Your task to perform on an android device: change timer sound Image 0: 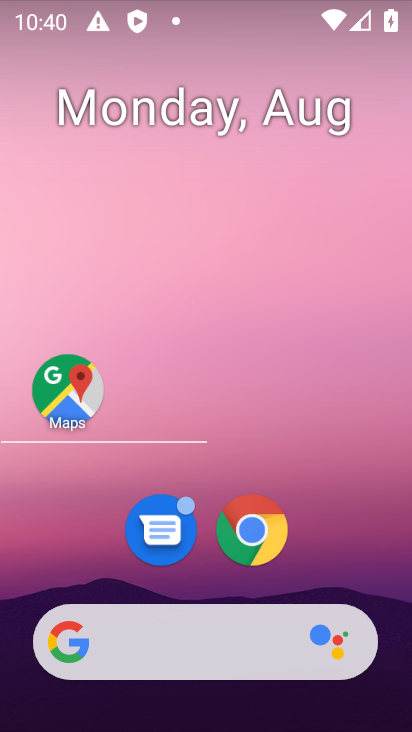
Step 0: press back button
Your task to perform on an android device: change timer sound Image 1: 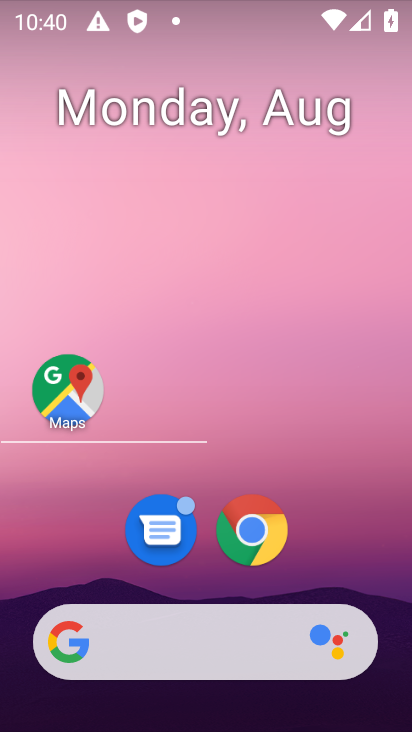
Step 1: drag from (42, 87) to (126, 189)
Your task to perform on an android device: change timer sound Image 2: 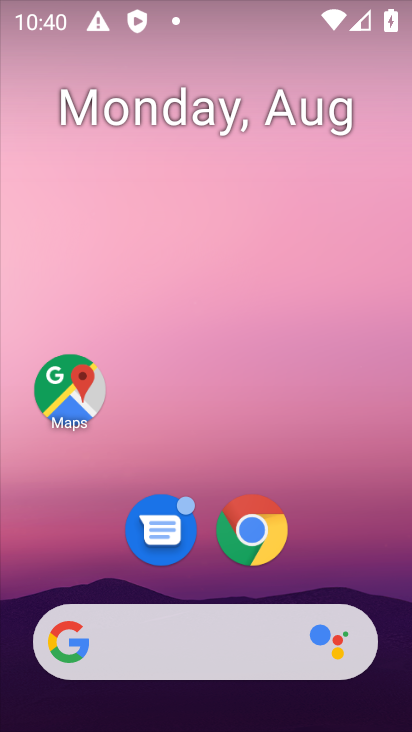
Step 2: drag from (189, 455) to (155, 235)
Your task to perform on an android device: change timer sound Image 3: 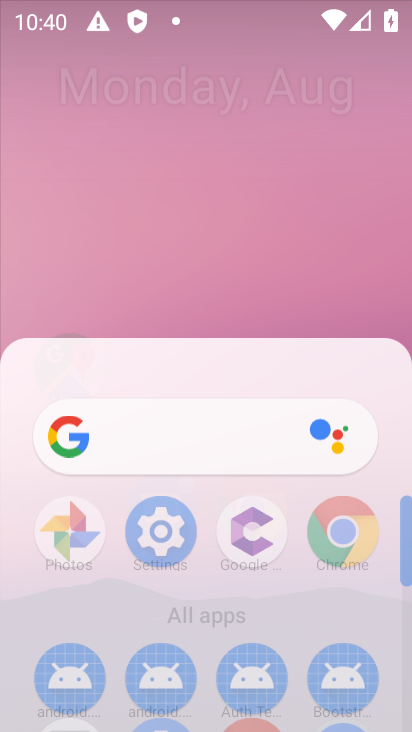
Step 3: drag from (206, 449) to (145, 210)
Your task to perform on an android device: change timer sound Image 4: 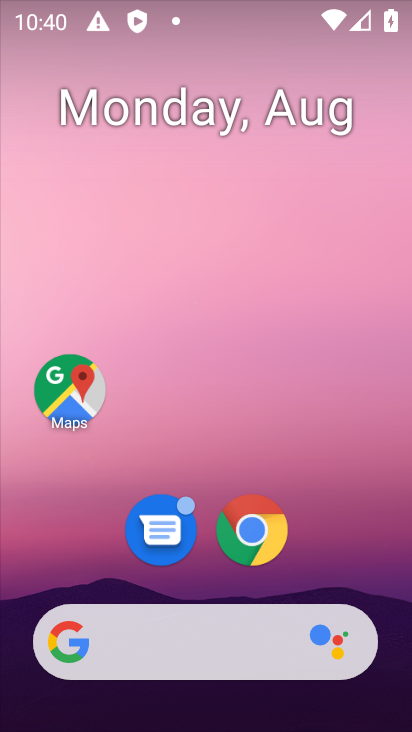
Step 4: drag from (224, 326) to (211, 243)
Your task to perform on an android device: change timer sound Image 5: 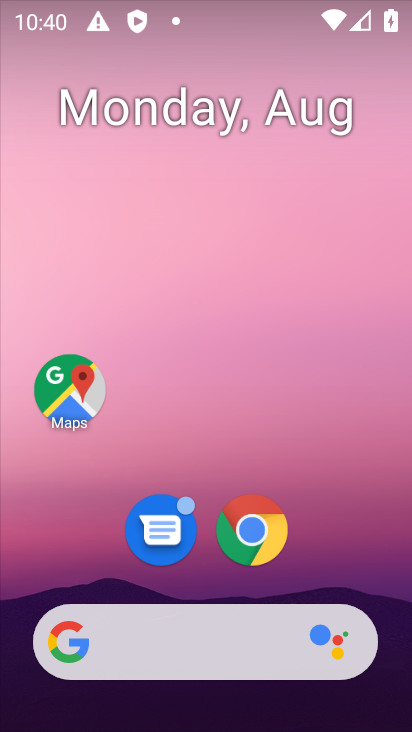
Step 5: drag from (182, 438) to (158, 277)
Your task to perform on an android device: change timer sound Image 6: 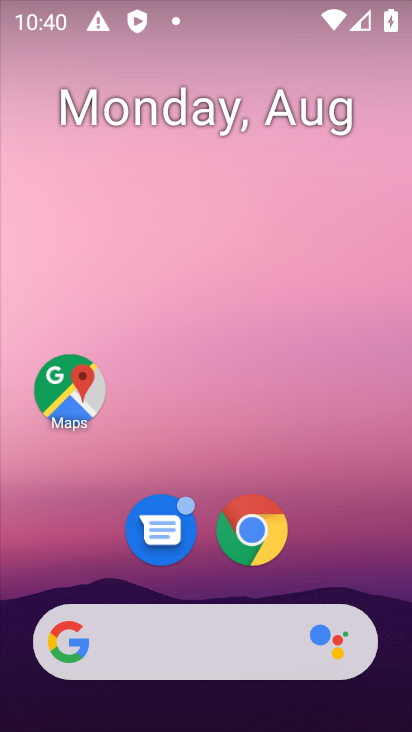
Step 6: drag from (162, 366) to (140, 252)
Your task to perform on an android device: change timer sound Image 7: 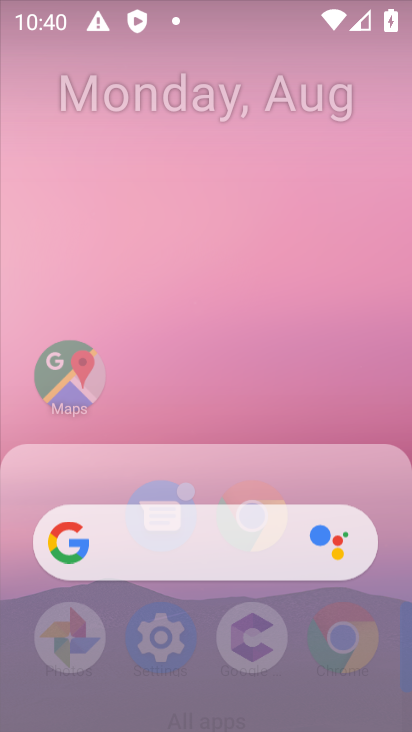
Step 7: click (216, 292)
Your task to perform on an android device: change timer sound Image 8: 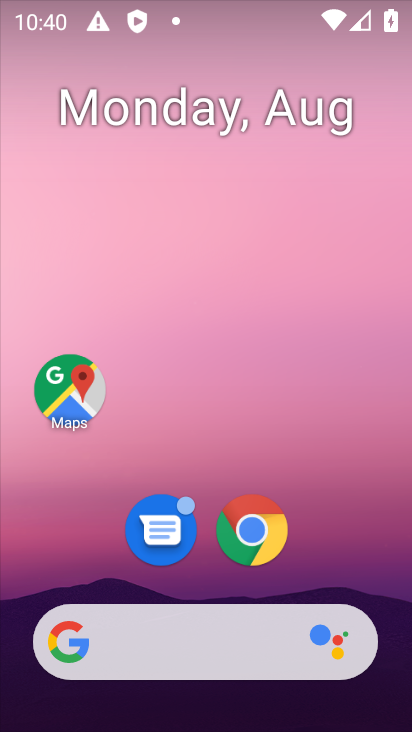
Step 8: drag from (186, 481) to (170, 138)
Your task to perform on an android device: change timer sound Image 9: 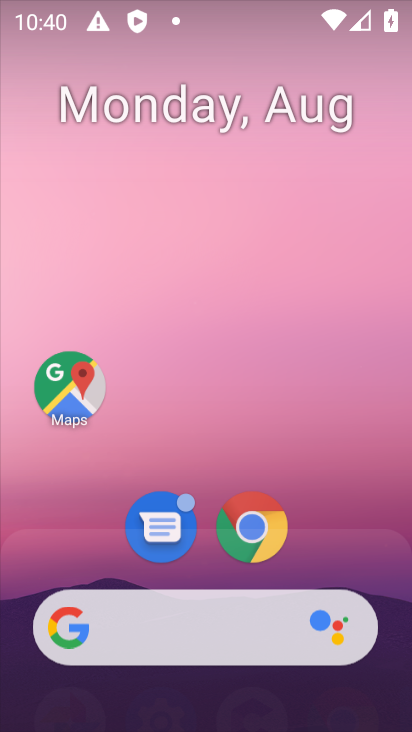
Step 9: drag from (188, 512) to (167, 201)
Your task to perform on an android device: change timer sound Image 10: 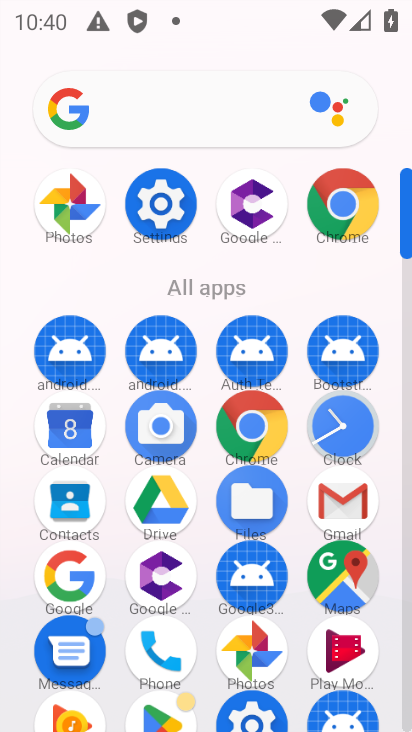
Step 10: drag from (182, 232) to (218, 158)
Your task to perform on an android device: change timer sound Image 11: 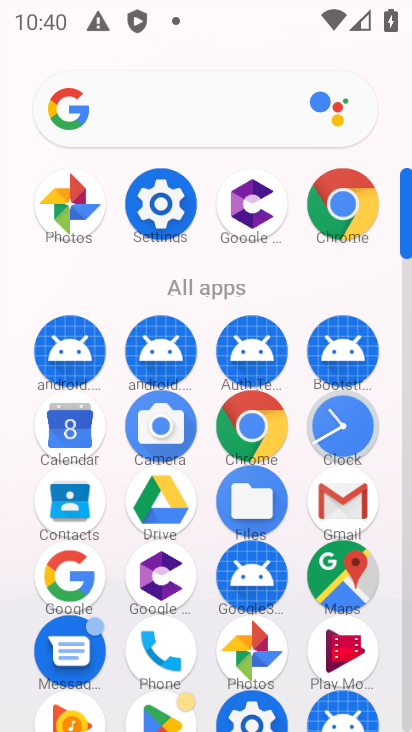
Step 11: click (153, 213)
Your task to perform on an android device: change timer sound Image 12: 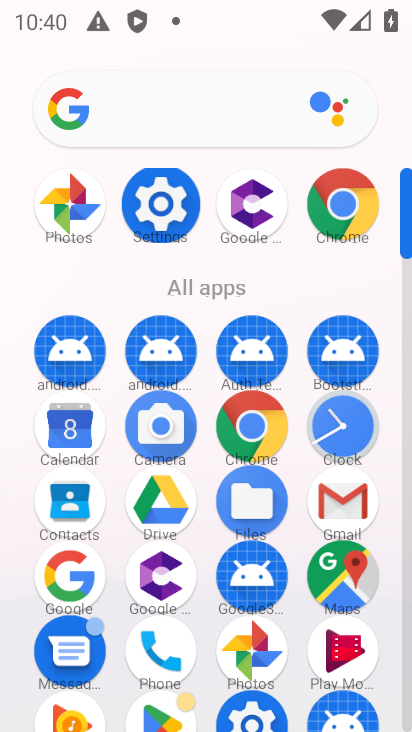
Step 12: click (152, 214)
Your task to perform on an android device: change timer sound Image 13: 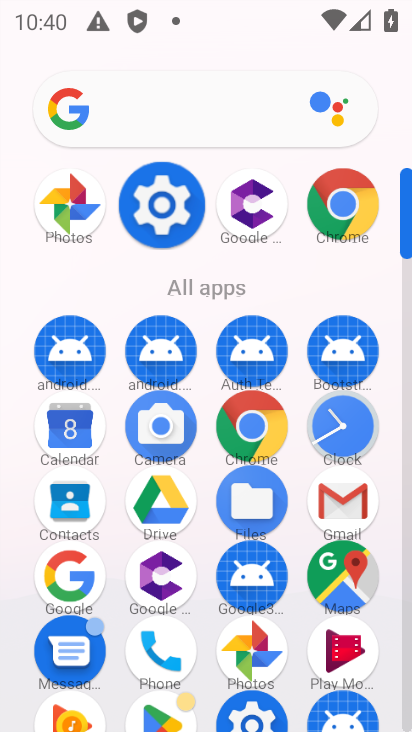
Step 13: click (153, 213)
Your task to perform on an android device: change timer sound Image 14: 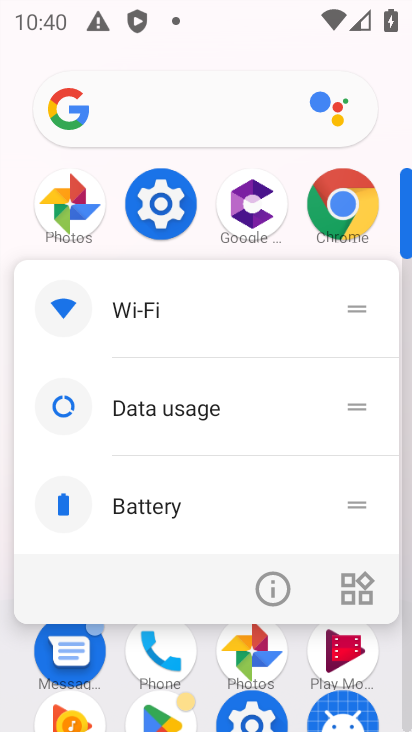
Step 14: click (162, 209)
Your task to perform on an android device: change timer sound Image 15: 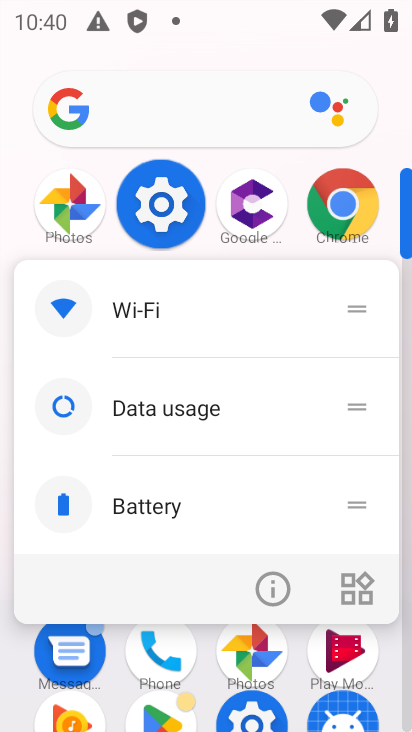
Step 15: click (162, 209)
Your task to perform on an android device: change timer sound Image 16: 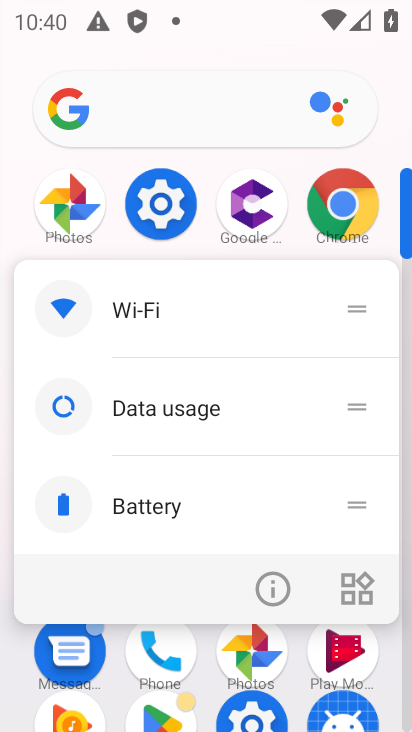
Step 16: click (162, 209)
Your task to perform on an android device: change timer sound Image 17: 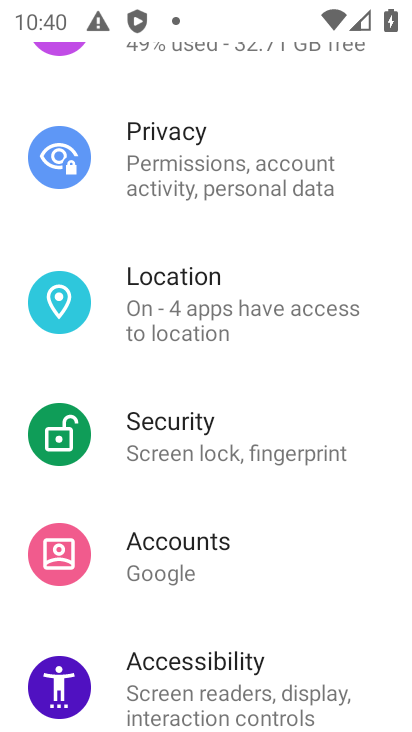
Step 17: drag from (195, 481) to (209, 167)
Your task to perform on an android device: change timer sound Image 18: 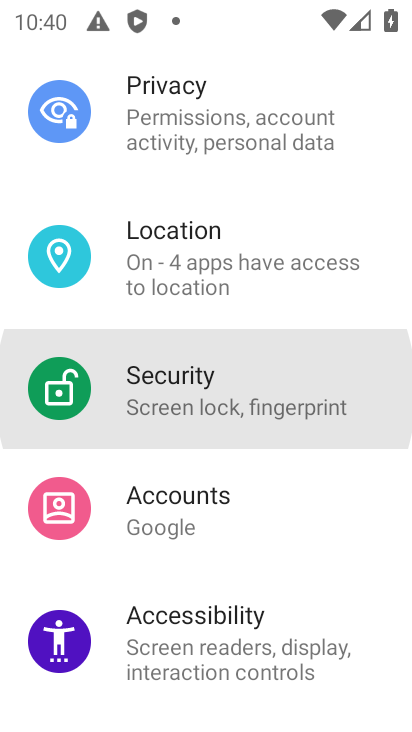
Step 18: drag from (224, 508) to (200, 262)
Your task to perform on an android device: change timer sound Image 19: 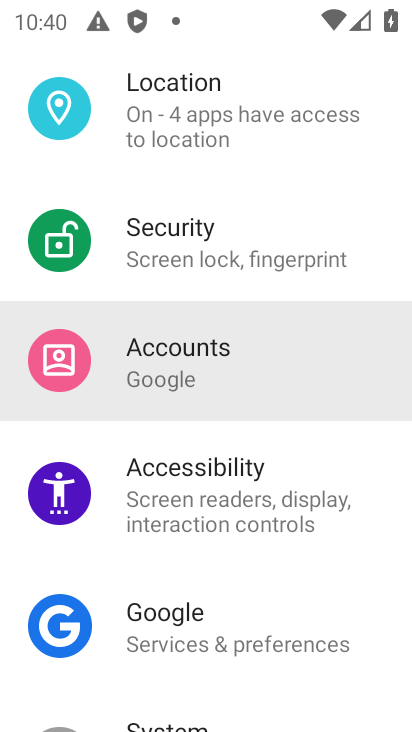
Step 19: drag from (214, 473) to (192, 308)
Your task to perform on an android device: change timer sound Image 20: 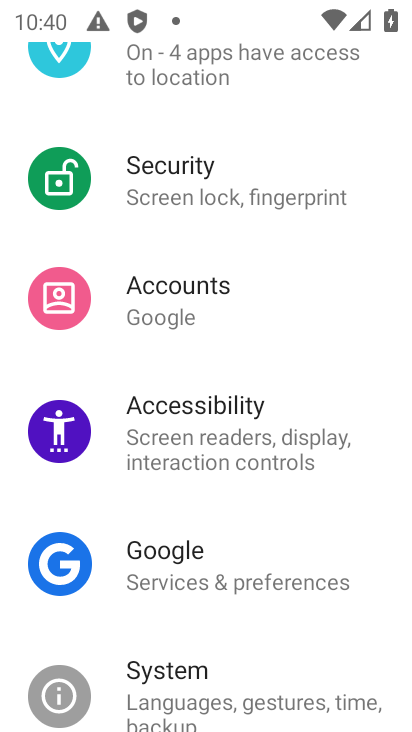
Step 20: drag from (219, 463) to (190, 228)
Your task to perform on an android device: change timer sound Image 21: 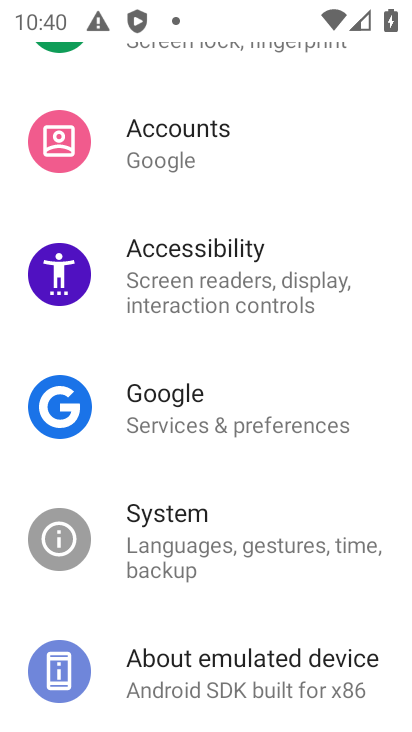
Step 21: click (246, 559)
Your task to perform on an android device: change timer sound Image 22: 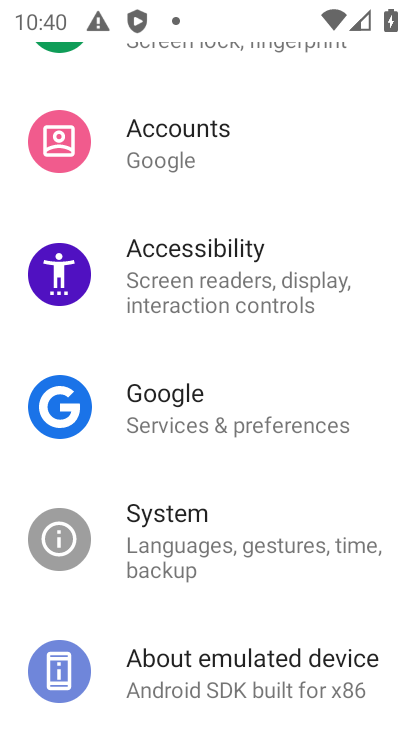
Step 22: drag from (190, 136) to (202, 537)
Your task to perform on an android device: change timer sound Image 23: 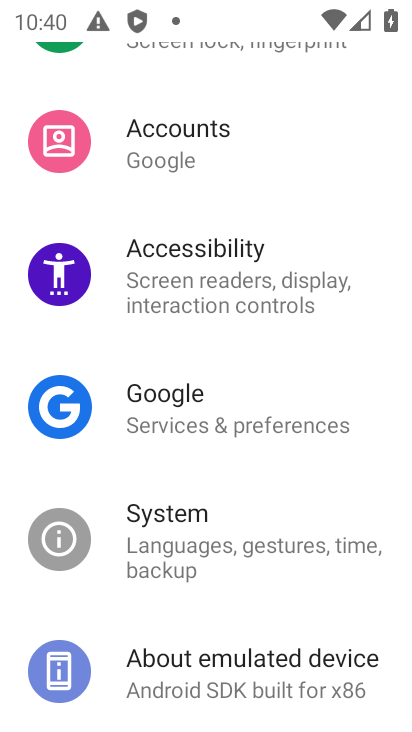
Step 23: drag from (166, 278) to (178, 539)
Your task to perform on an android device: change timer sound Image 24: 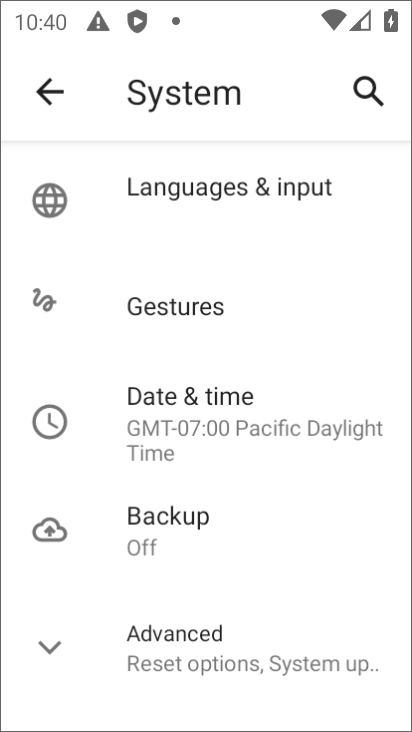
Step 24: drag from (157, 243) to (231, 618)
Your task to perform on an android device: change timer sound Image 25: 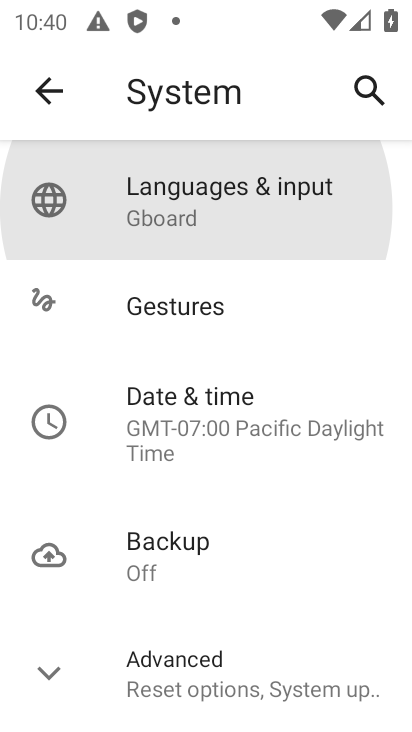
Step 25: drag from (158, 255) to (205, 624)
Your task to perform on an android device: change timer sound Image 26: 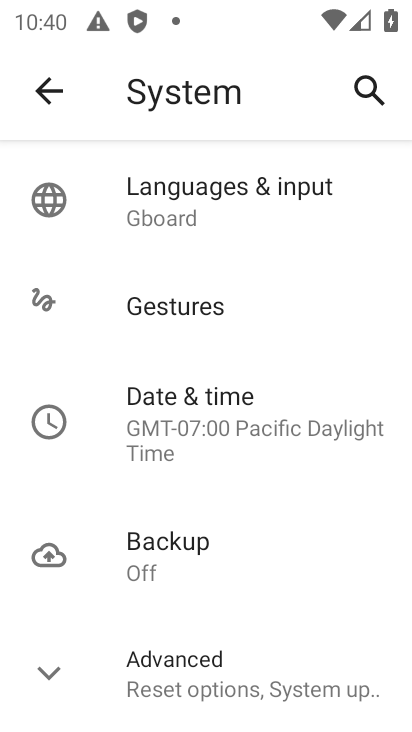
Step 26: click (42, 89)
Your task to perform on an android device: change timer sound Image 27: 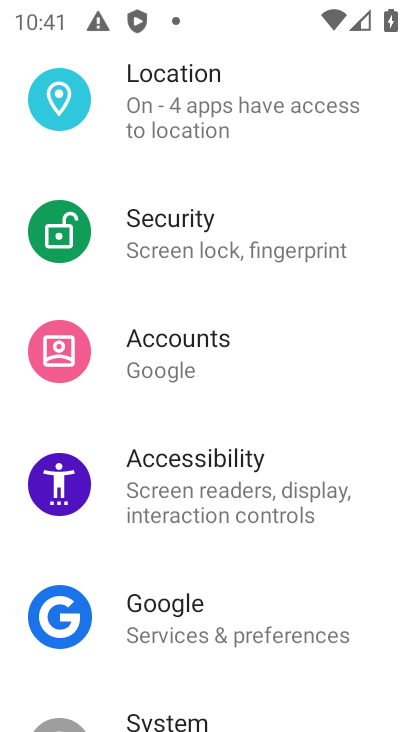
Step 27: drag from (196, 175) to (195, 488)
Your task to perform on an android device: change timer sound Image 28: 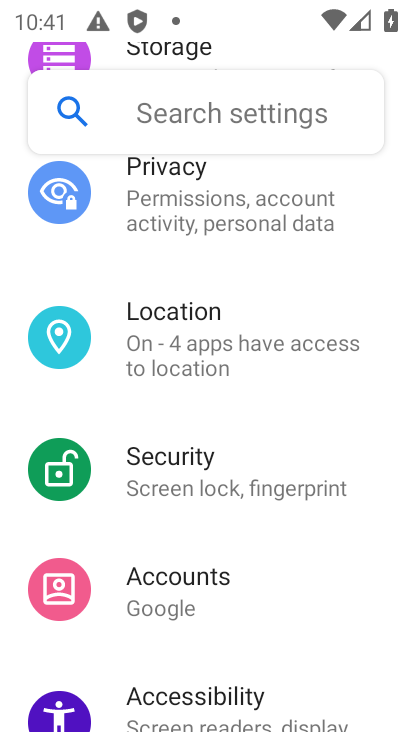
Step 28: drag from (165, 274) to (169, 530)
Your task to perform on an android device: change timer sound Image 29: 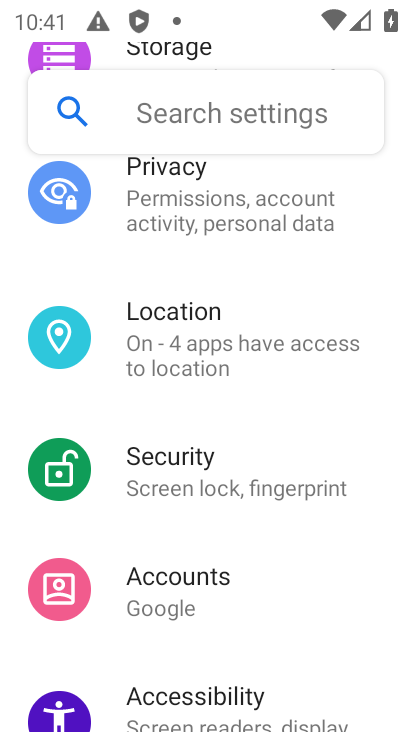
Step 29: drag from (183, 356) to (209, 565)
Your task to perform on an android device: change timer sound Image 30: 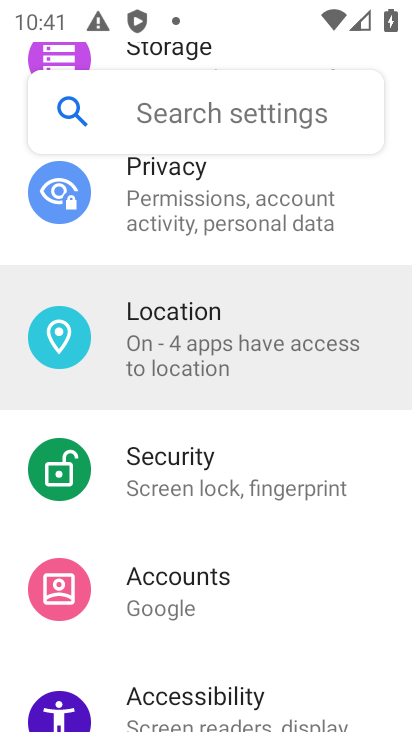
Step 30: click (208, 584)
Your task to perform on an android device: change timer sound Image 31: 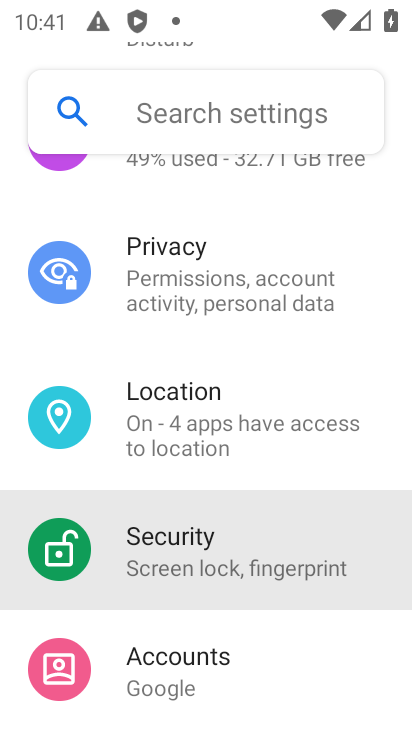
Step 31: click (186, 617)
Your task to perform on an android device: change timer sound Image 32: 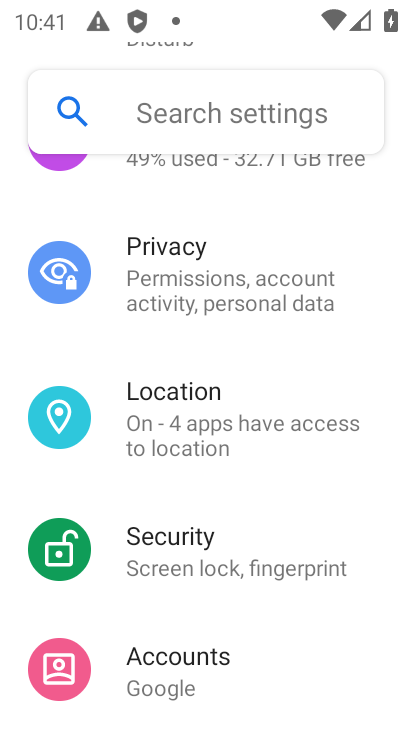
Step 32: drag from (197, 337) to (223, 634)
Your task to perform on an android device: change timer sound Image 33: 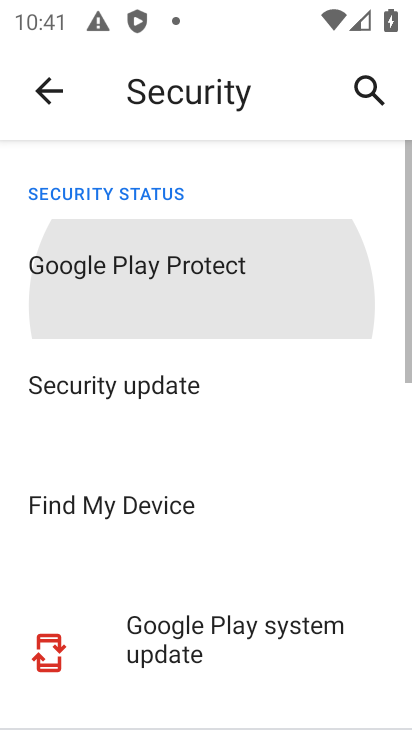
Step 33: click (219, 525)
Your task to perform on an android device: change timer sound Image 34: 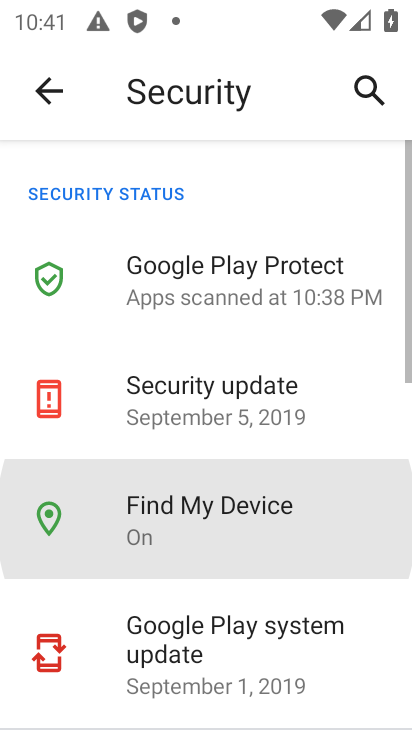
Step 34: click (194, 537)
Your task to perform on an android device: change timer sound Image 35: 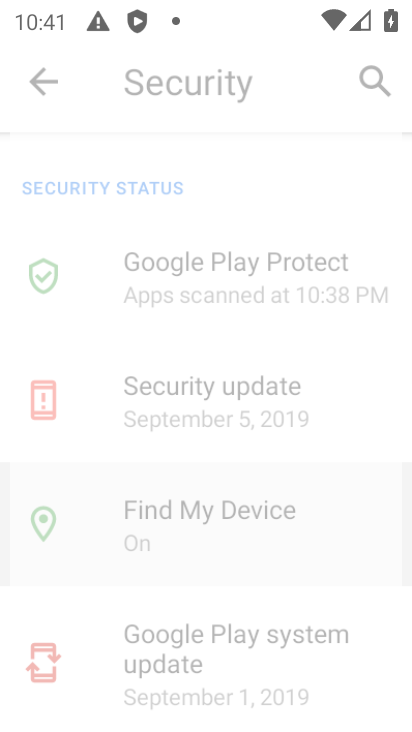
Step 35: drag from (177, 343) to (204, 558)
Your task to perform on an android device: change timer sound Image 36: 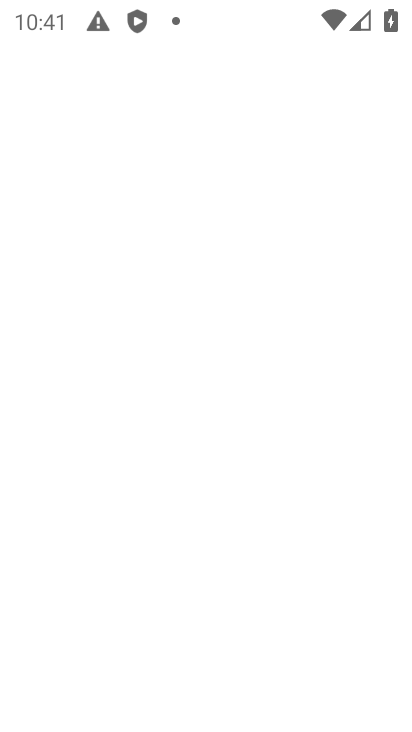
Step 36: click (43, 97)
Your task to perform on an android device: change timer sound Image 37: 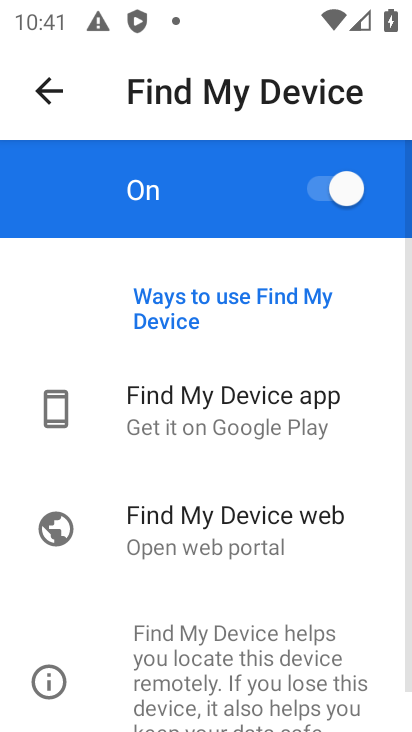
Step 37: press back button
Your task to perform on an android device: change timer sound Image 38: 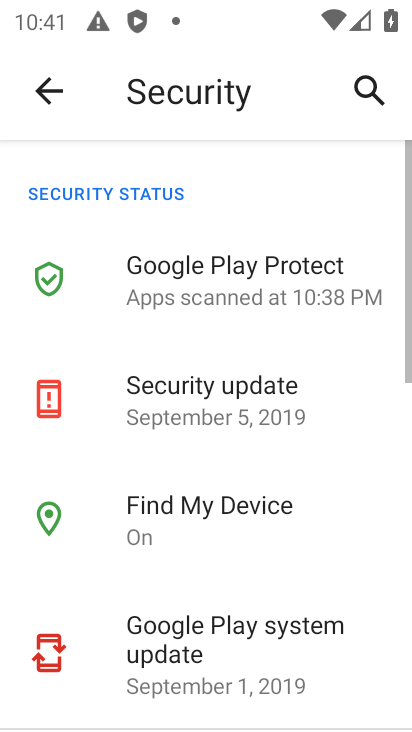
Step 38: click (36, 88)
Your task to perform on an android device: change timer sound Image 39: 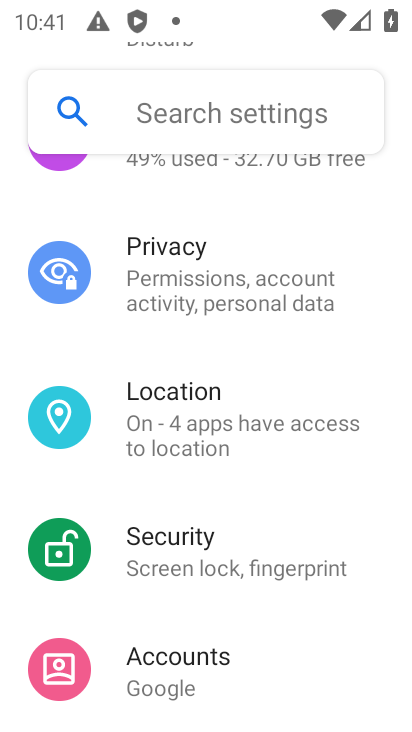
Step 39: press home button
Your task to perform on an android device: change timer sound Image 40: 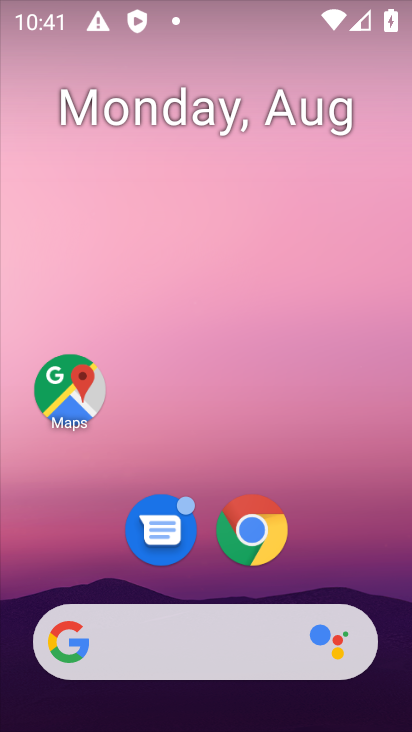
Step 40: drag from (195, 659) to (183, 198)
Your task to perform on an android device: change timer sound Image 41: 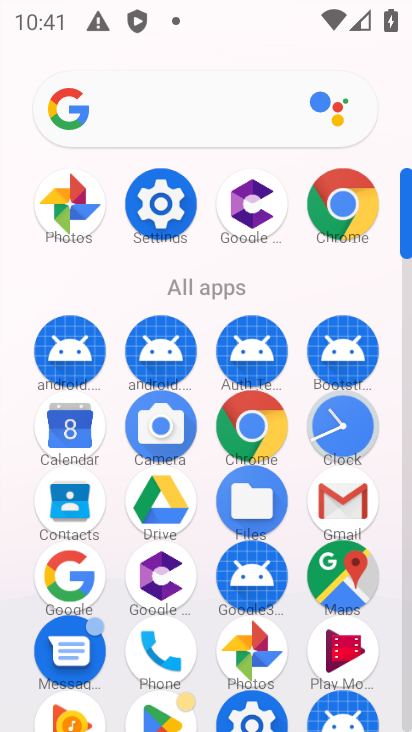
Step 41: click (337, 430)
Your task to perform on an android device: change timer sound Image 42: 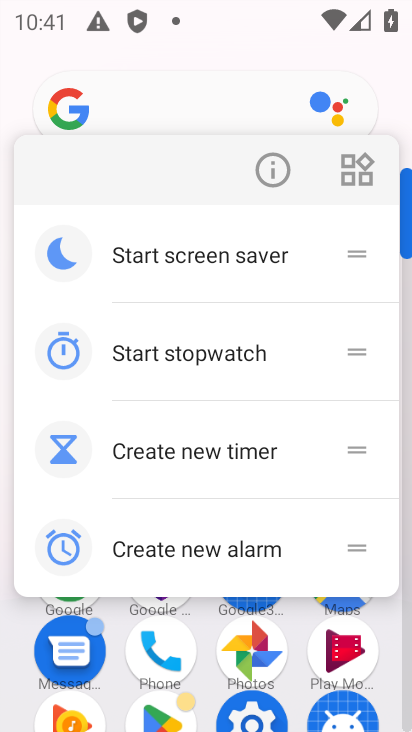
Step 42: click (336, 431)
Your task to perform on an android device: change timer sound Image 43: 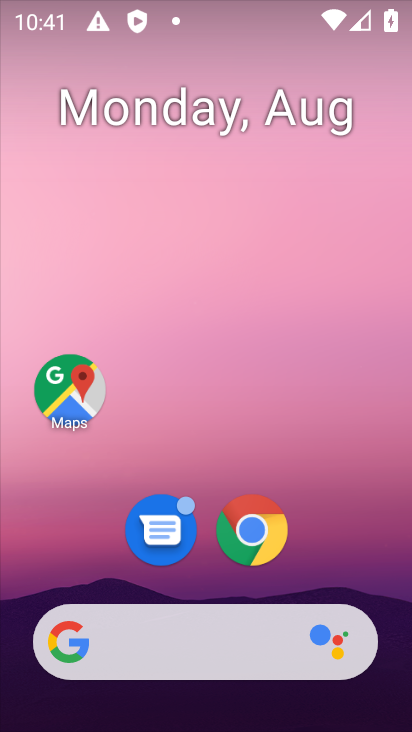
Step 43: drag from (178, 573) to (107, 219)
Your task to perform on an android device: change timer sound Image 44: 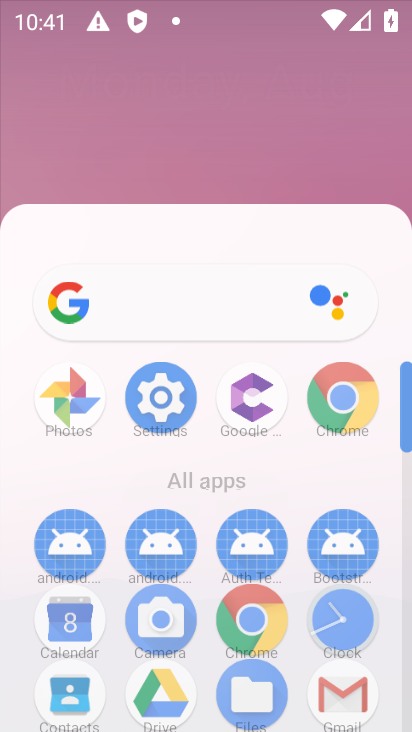
Step 44: drag from (265, 587) to (265, 329)
Your task to perform on an android device: change timer sound Image 45: 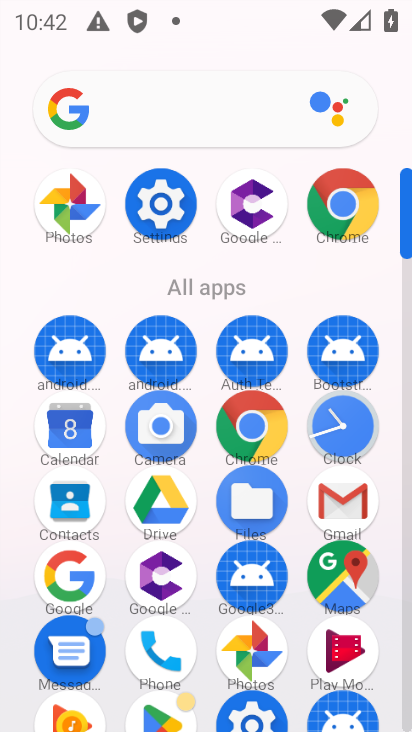
Step 45: click (327, 418)
Your task to perform on an android device: change timer sound Image 46: 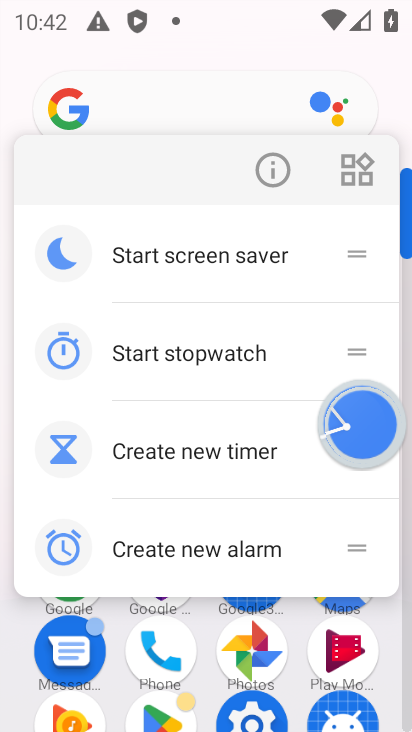
Step 46: click (349, 450)
Your task to perform on an android device: change timer sound Image 47: 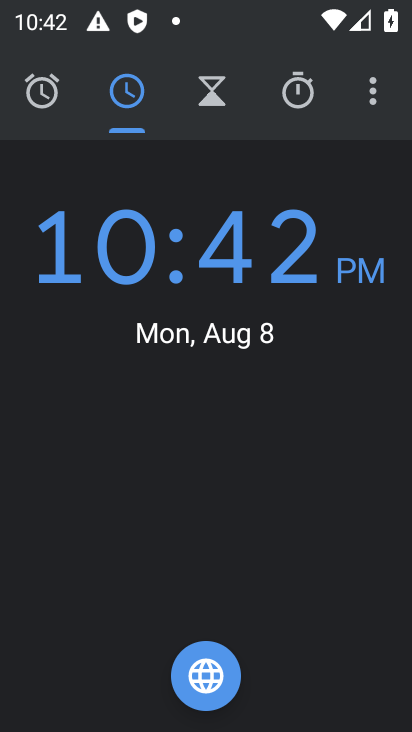
Step 47: click (371, 98)
Your task to perform on an android device: change timer sound Image 48: 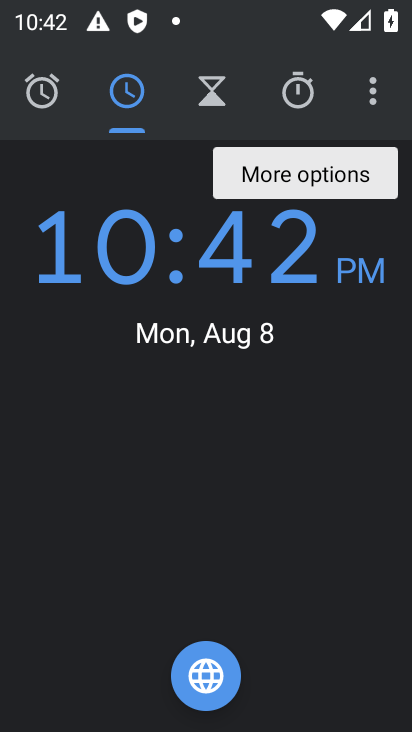
Step 48: click (370, 97)
Your task to perform on an android device: change timer sound Image 49: 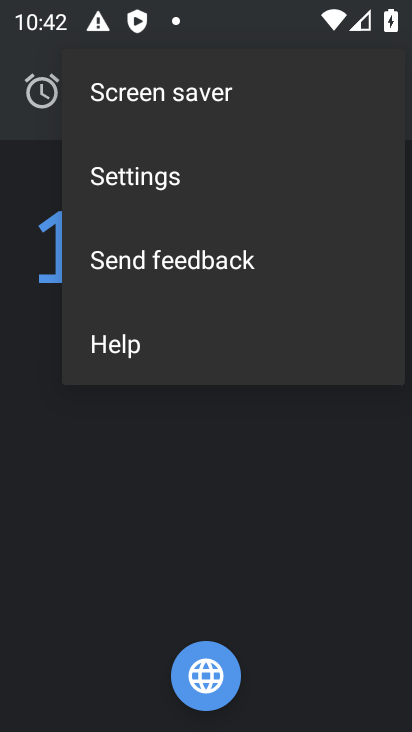
Step 49: click (128, 166)
Your task to perform on an android device: change timer sound Image 50: 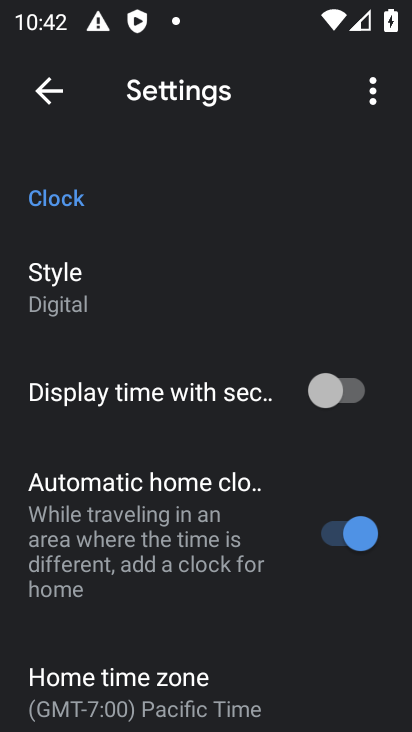
Step 50: drag from (207, 584) to (178, 423)
Your task to perform on an android device: change timer sound Image 51: 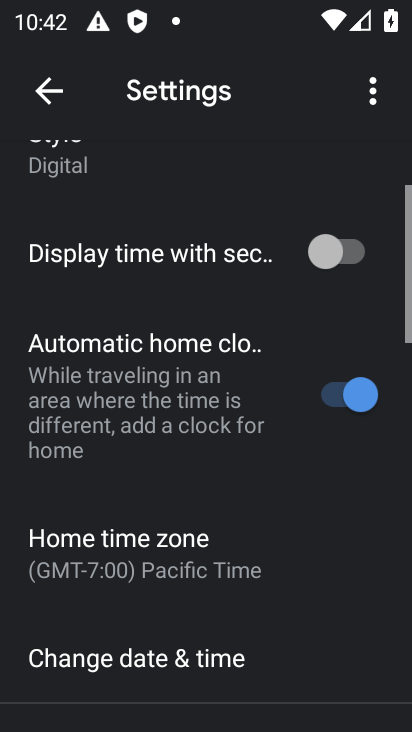
Step 51: drag from (192, 563) to (186, 277)
Your task to perform on an android device: change timer sound Image 52: 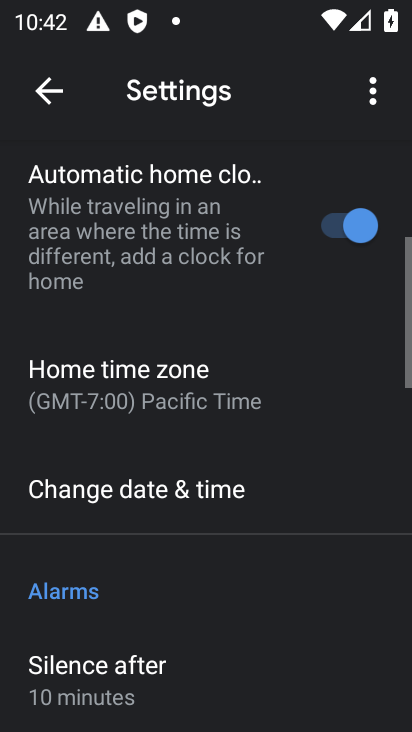
Step 52: drag from (198, 493) to (204, 431)
Your task to perform on an android device: change timer sound Image 53: 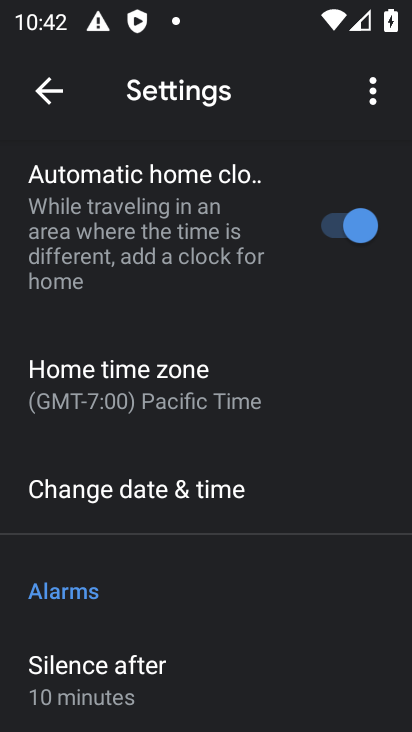
Step 53: drag from (182, 582) to (122, 263)
Your task to perform on an android device: change timer sound Image 54: 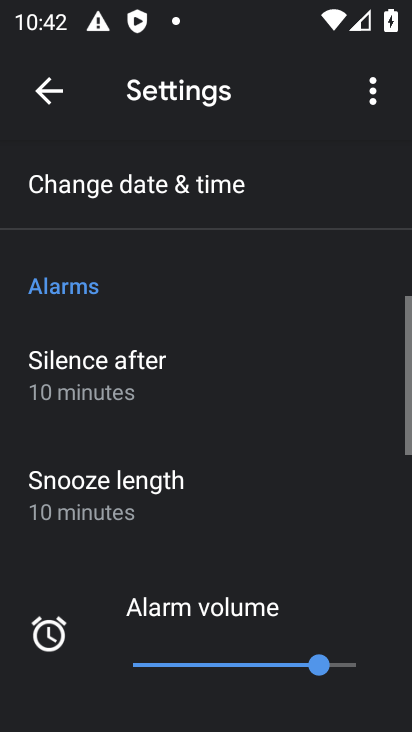
Step 54: click (142, 289)
Your task to perform on an android device: change timer sound Image 55: 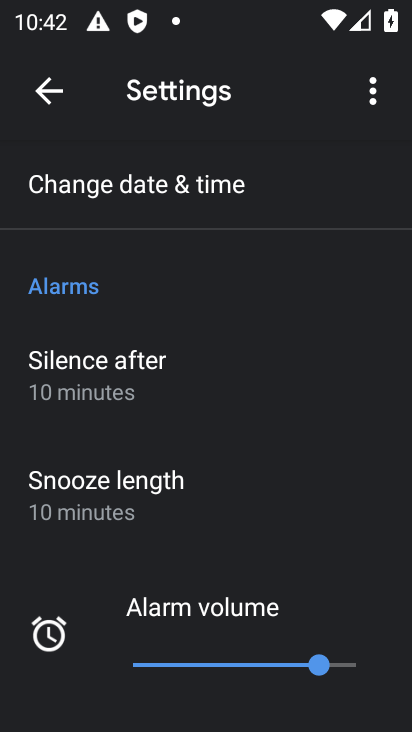
Step 55: drag from (189, 574) to (159, 308)
Your task to perform on an android device: change timer sound Image 56: 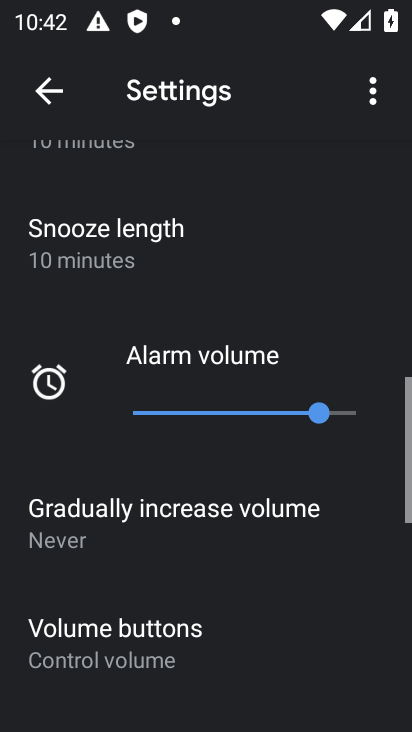
Step 56: drag from (195, 542) to (195, 139)
Your task to perform on an android device: change timer sound Image 57: 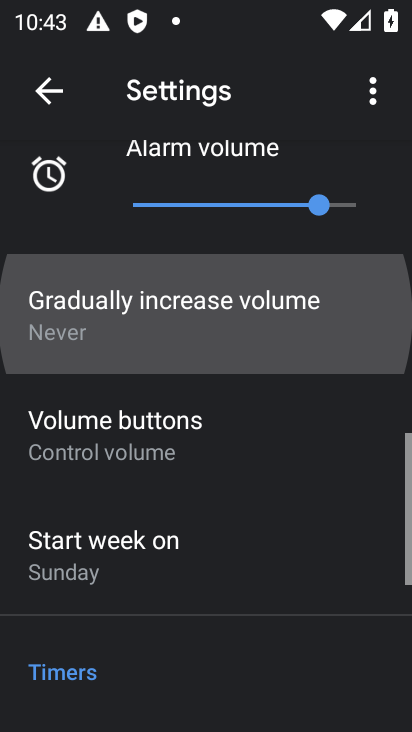
Step 57: drag from (291, 489) to (231, 230)
Your task to perform on an android device: change timer sound Image 58: 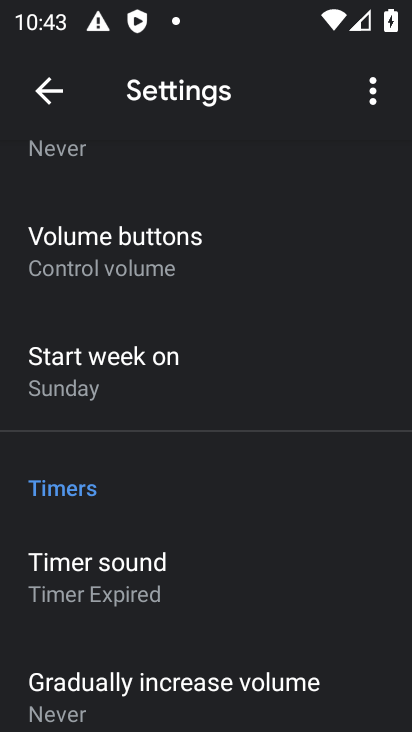
Step 58: click (131, 559)
Your task to perform on an android device: change timer sound Image 59: 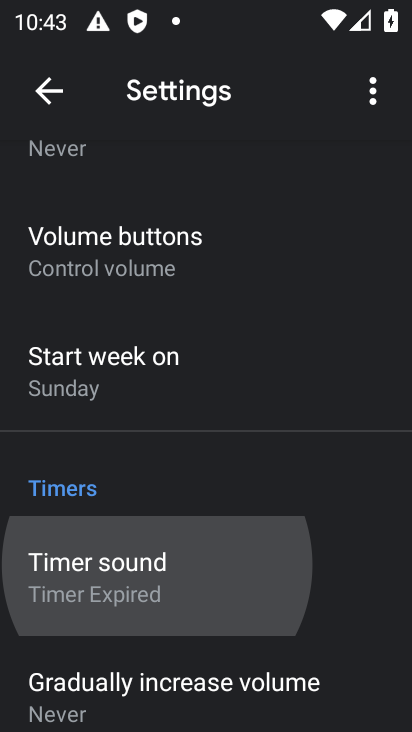
Step 59: click (132, 581)
Your task to perform on an android device: change timer sound Image 60: 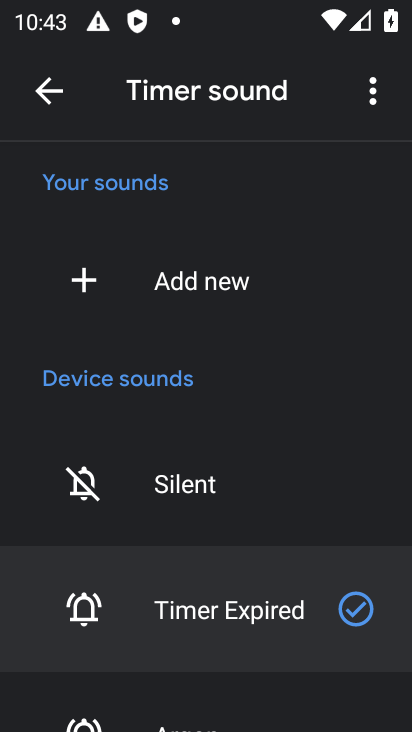
Step 60: click (182, 294)
Your task to perform on an android device: change timer sound Image 61: 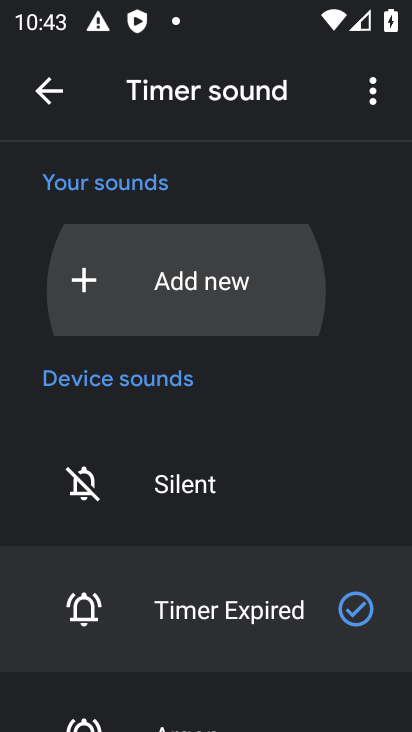
Step 61: click (187, 297)
Your task to perform on an android device: change timer sound Image 62: 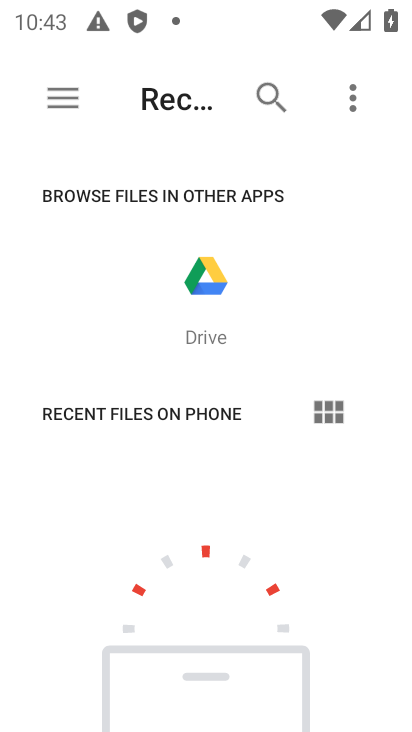
Step 62: press back button
Your task to perform on an android device: change timer sound Image 63: 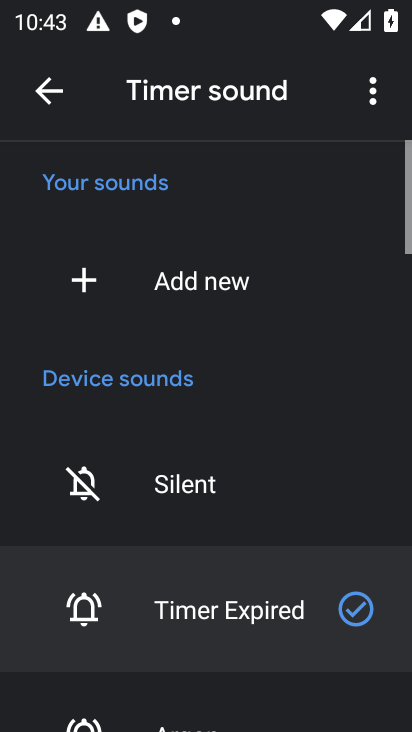
Step 63: drag from (131, 642) to (127, 220)
Your task to perform on an android device: change timer sound Image 64: 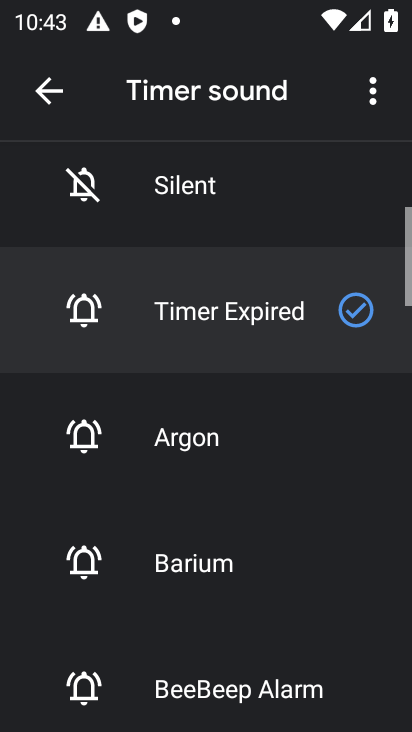
Step 64: drag from (203, 496) to (192, 246)
Your task to perform on an android device: change timer sound Image 65: 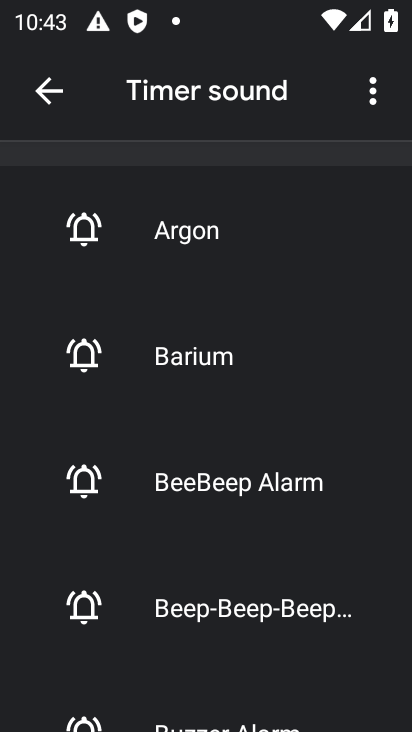
Step 65: click (93, 474)
Your task to perform on an android device: change timer sound Image 66: 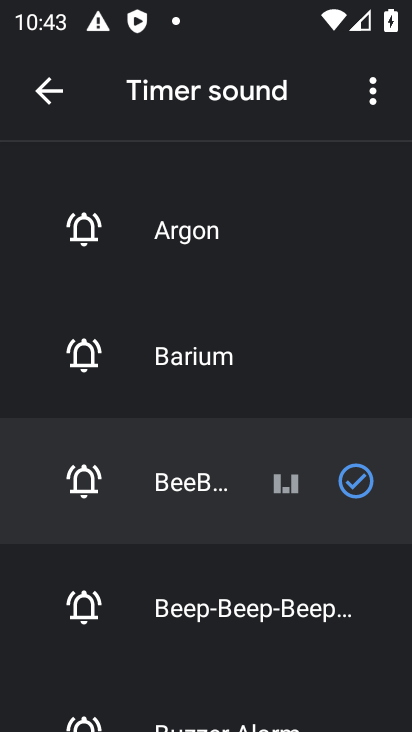
Step 66: task complete